Your task to perform on an android device: turn on priority inbox in the gmail app Image 0: 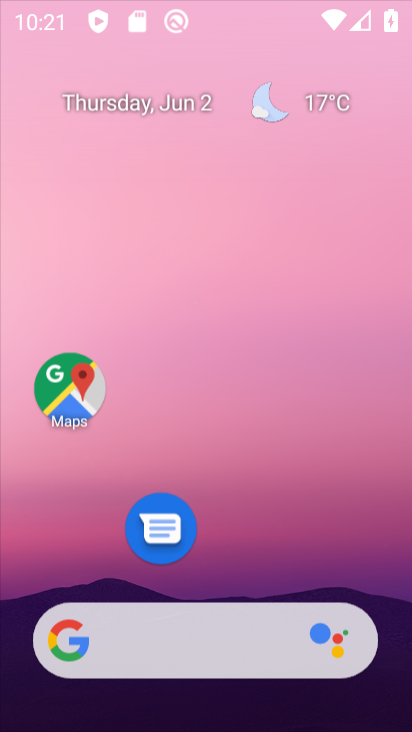
Step 0: click (166, 126)
Your task to perform on an android device: turn on priority inbox in the gmail app Image 1: 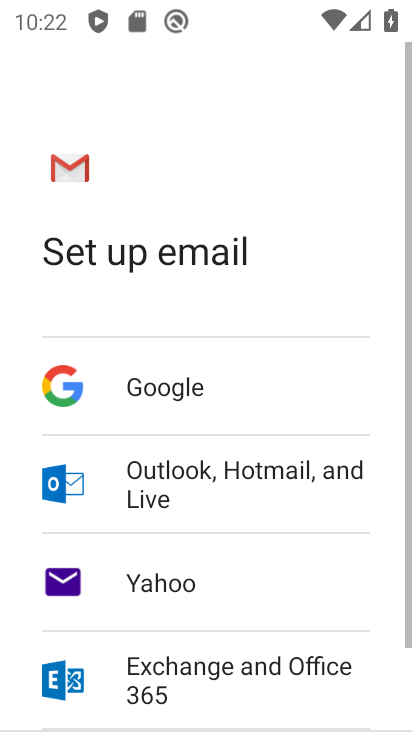
Step 1: press back button
Your task to perform on an android device: turn on priority inbox in the gmail app Image 2: 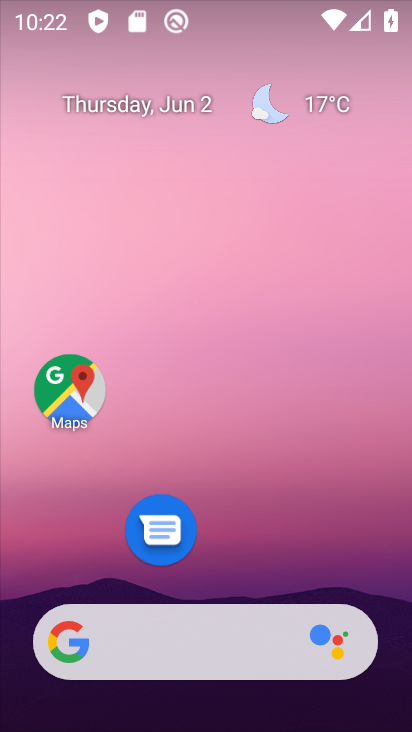
Step 2: drag from (163, 464) to (163, 286)
Your task to perform on an android device: turn on priority inbox in the gmail app Image 3: 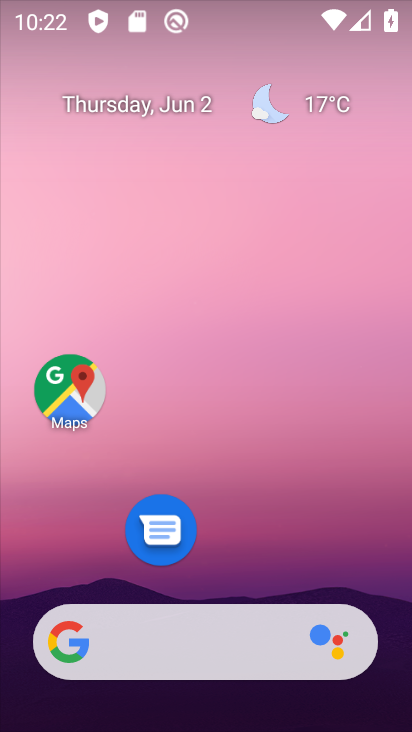
Step 3: drag from (252, 600) to (186, 157)
Your task to perform on an android device: turn on priority inbox in the gmail app Image 4: 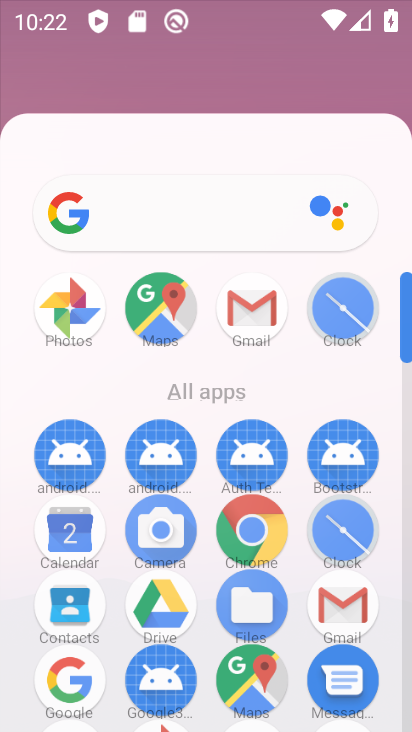
Step 4: drag from (236, 578) to (211, 186)
Your task to perform on an android device: turn on priority inbox in the gmail app Image 5: 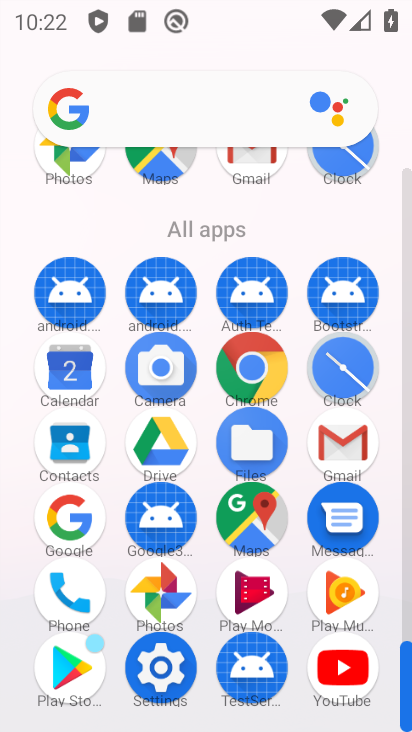
Step 5: drag from (309, 644) to (245, 228)
Your task to perform on an android device: turn on priority inbox in the gmail app Image 6: 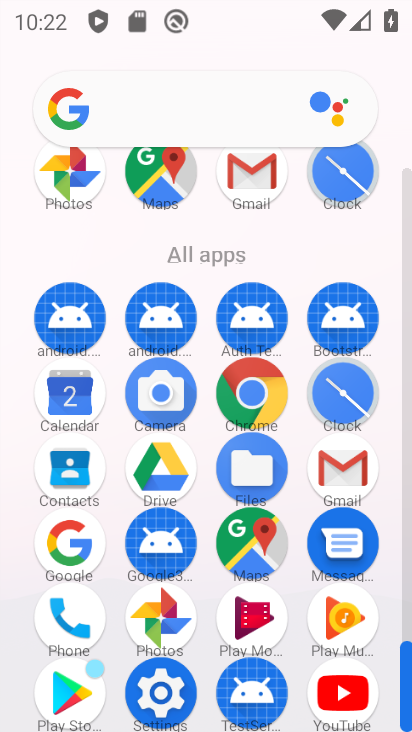
Step 6: click (334, 467)
Your task to perform on an android device: turn on priority inbox in the gmail app Image 7: 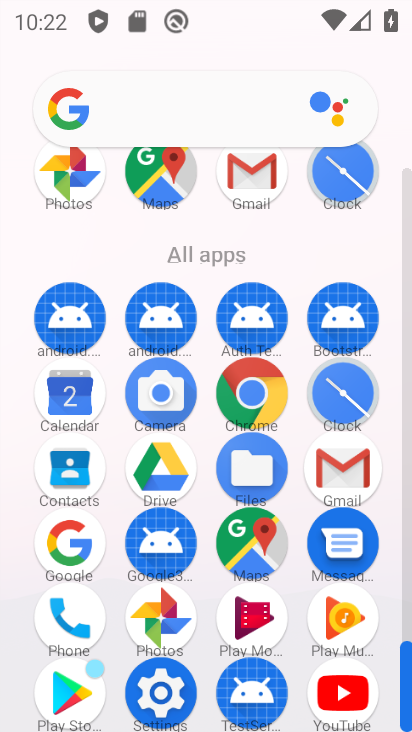
Step 7: click (334, 467)
Your task to perform on an android device: turn on priority inbox in the gmail app Image 8: 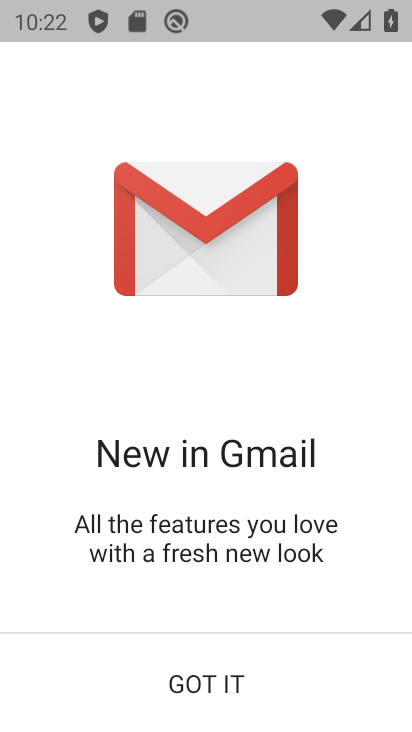
Step 8: click (334, 466)
Your task to perform on an android device: turn on priority inbox in the gmail app Image 9: 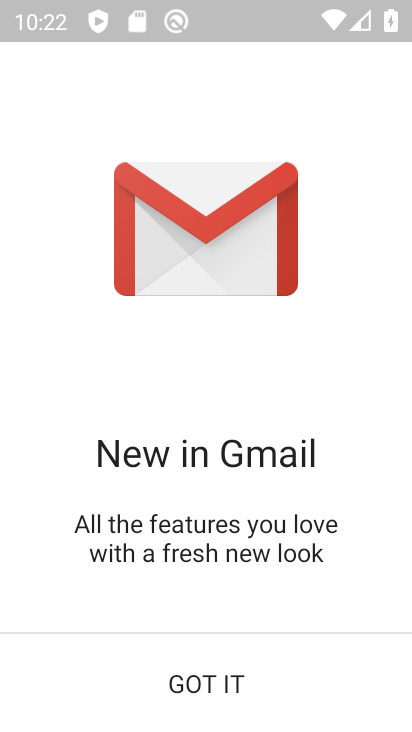
Step 9: click (216, 686)
Your task to perform on an android device: turn on priority inbox in the gmail app Image 10: 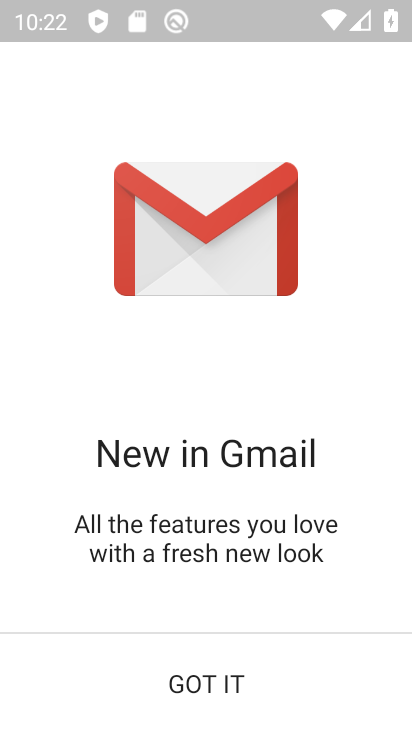
Step 10: click (216, 687)
Your task to perform on an android device: turn on priority inbox in the gmail app Image 11: 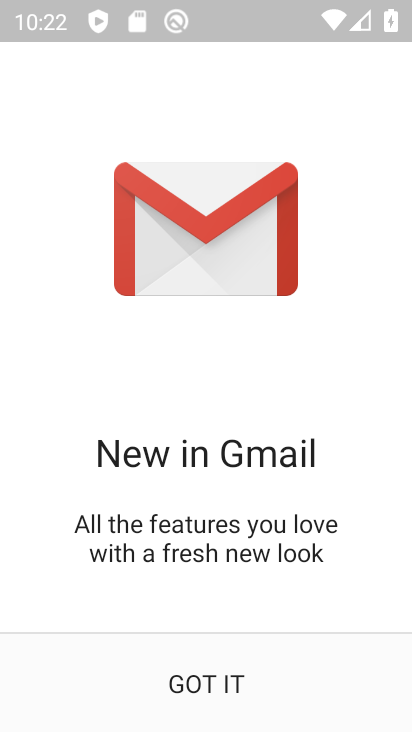
Step 11: click (214, 681)
Your task to perform on an android device: turn on priority inbox in the gmail app Image 12: 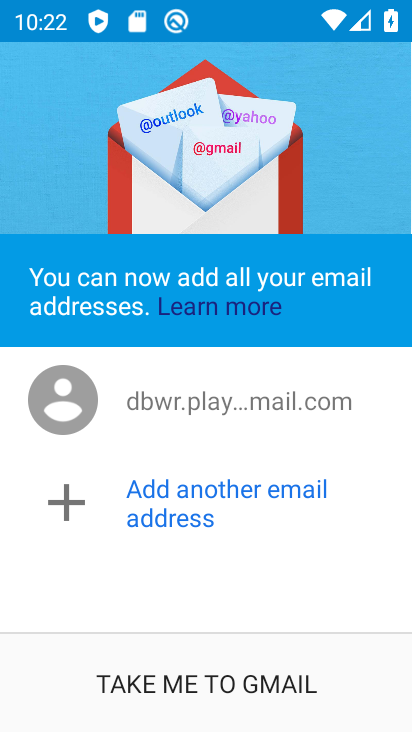
Step 12: click (231, 698)
Your task to perform on an android device: turn on priority inbox in the gmail app Image 13: 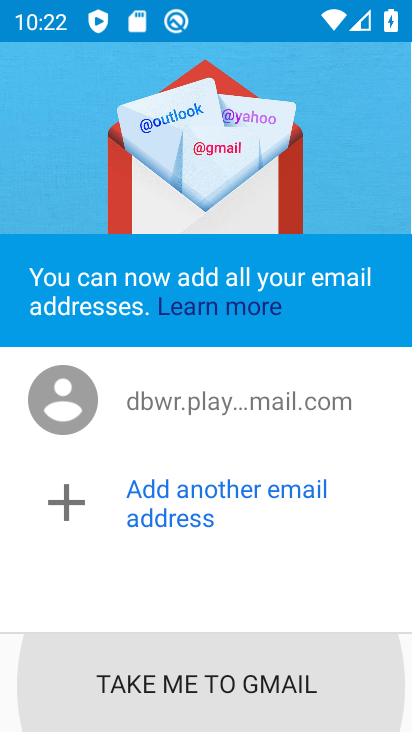
Step 13: click (231, 698)
Your task to perform on an android device: turn on priority inbox in the gmail app Image 14: 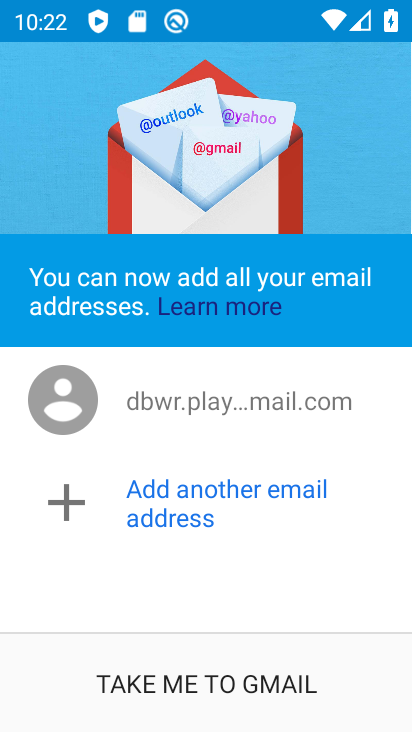
Step 14: click (226, 690)
Your task to perform on an android device: turn on priority inbox in the gmail app Image 15: 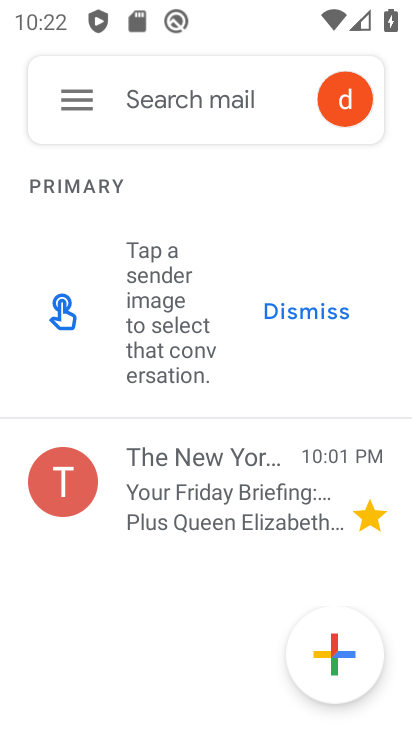
Step 15: click (73, 106)
Your task to perform on an android device: turn on priority inbox in the gmail app Image 16: 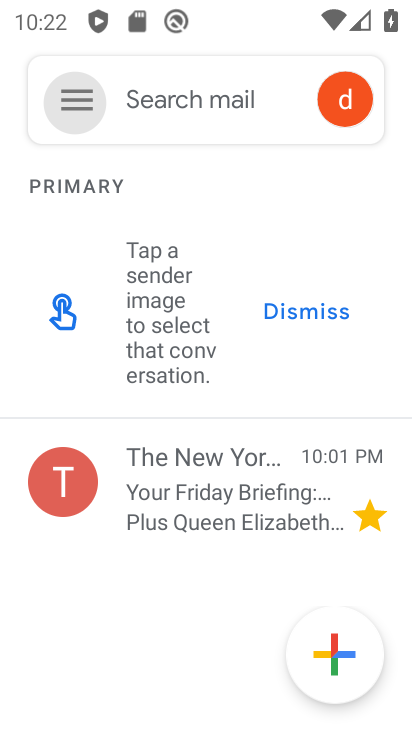
Step 16: click (73, 106)
Your task to perform on an android device: turn on priority inbox in the gmail app Image 17: 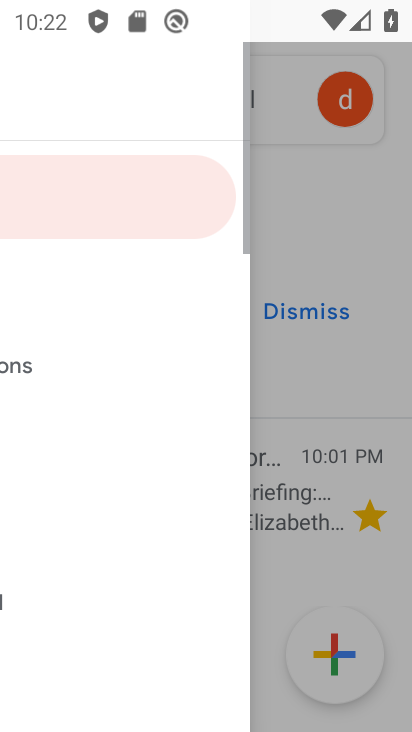
Step 17: click (76, 106)
Your task to perform on an android device: turn on priority inbox in the gmail app Image 18: 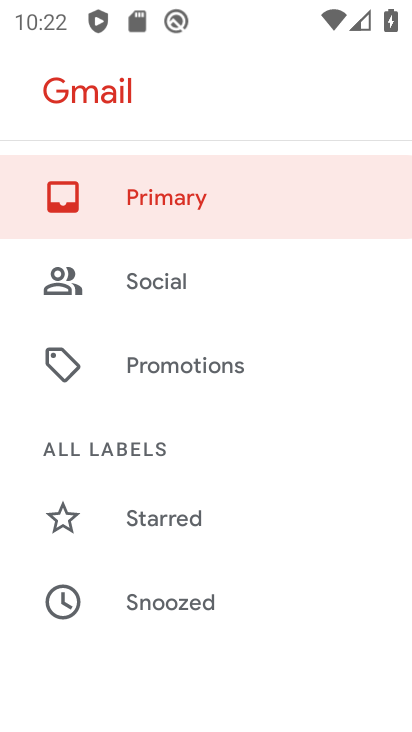
Step 18: drag from (218, 560) to (218, 174)
Your task to perform on an android device: turn on priority inbox in the gmail app Image 19: 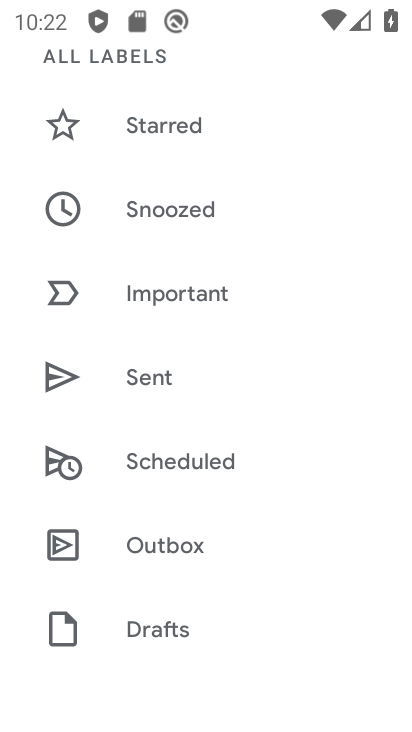
Step 19: drag from (268, 446) to (257, 217)
Your task to perform on an android device: turn on priority inbox in the gmail app Image 20: 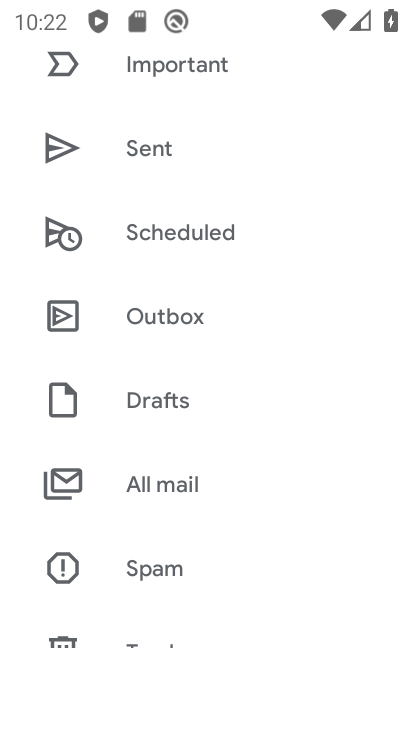
Step 20: drag from (222, 571) to (260, 201)
Your task to perform on an android device: turn on priority inbox in the gmail app Image 21: 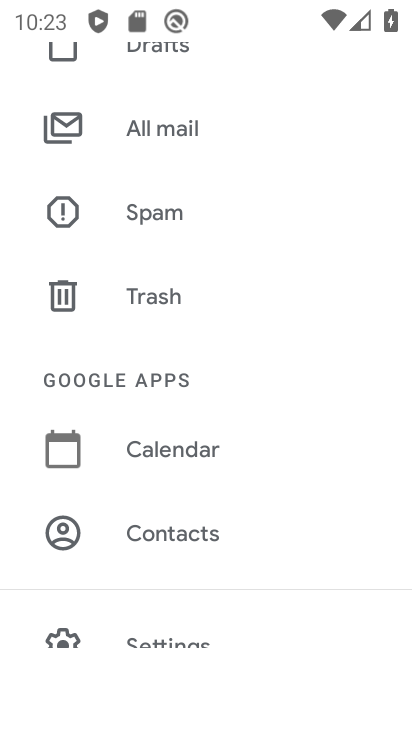
Step 21: drag from (250, 384) to (248, 133)
Your task to perform on an android device: turn on priority inbox in the gmail app Image 22: 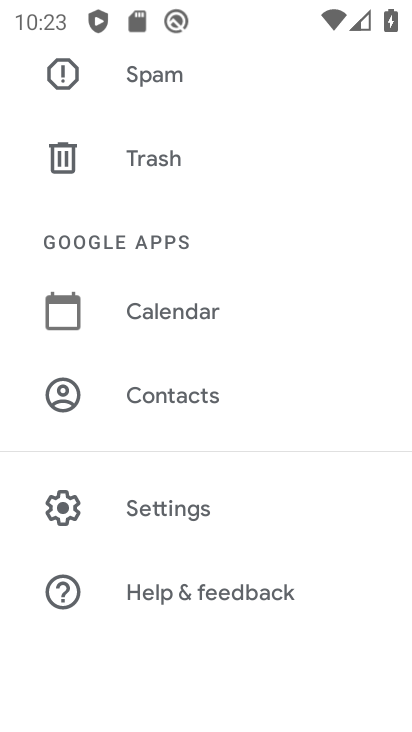
Step 22: click (145, 501)
Your task to perform on an android device: turn on priority inbox in the gmail app Image 23: 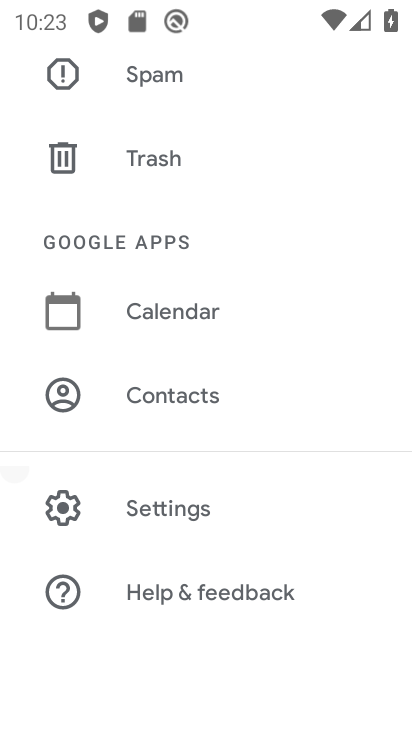
Step 23: click (149, 500)
Your task to perform on an android device: turn on priority inbox in the gmail app Image 24: 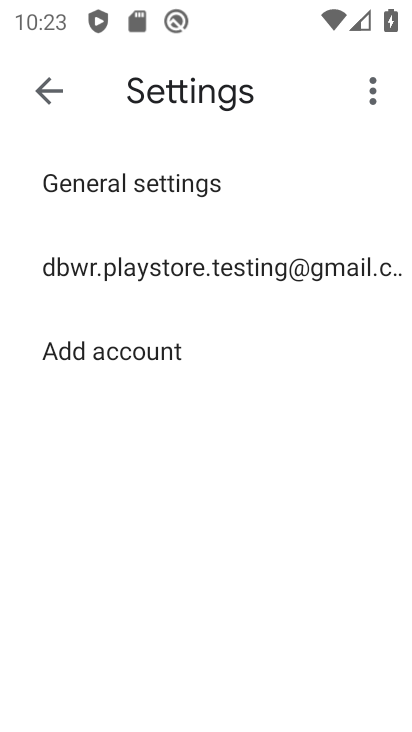
Step 24: click (165, 248)
Your task to perform on an android device: turn on priority inbox in the gmail app Image 25: 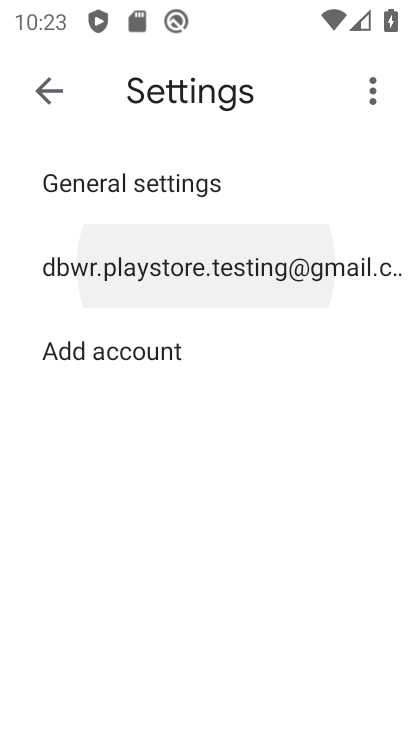
Step 25: click (174, 264)
Your task to perform on an android device: turn on priority inbox in the gmail app Image 26: 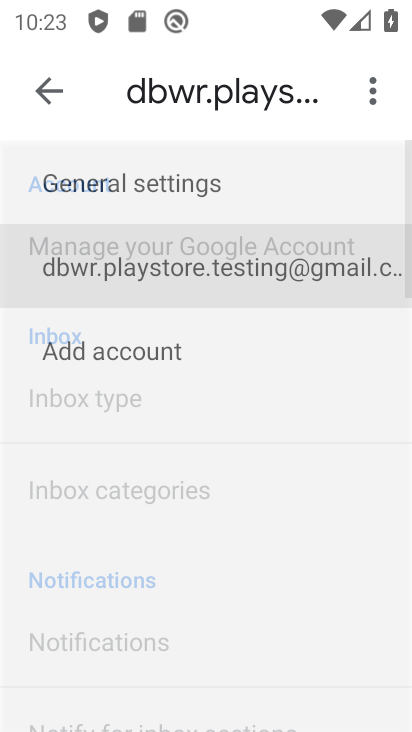
Step 26: click (174, 268)
Your task to perform on an android device: turn on priority inbox in the gmail app Image 27: 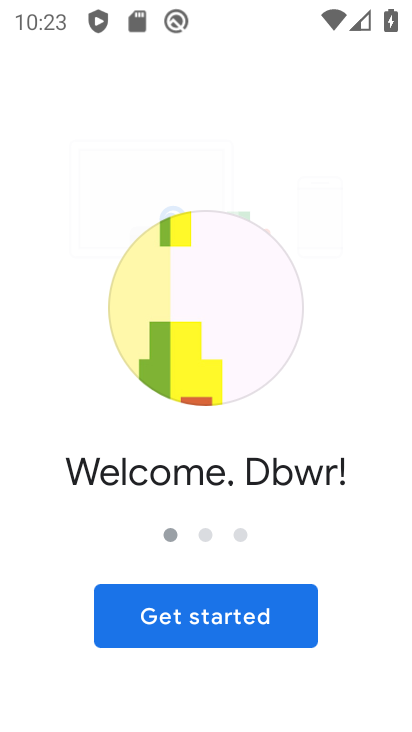
Step 27: press back button
Your task to perform on an android device: turn on priority inbox in the gmail app Image 28: 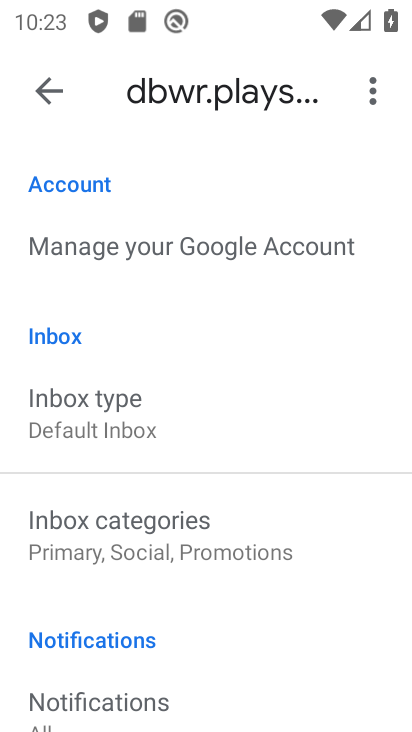
Step 28: click (77, 445)
Your task to perform on an android device: turn on priority inbox in the gmail app Image 29: 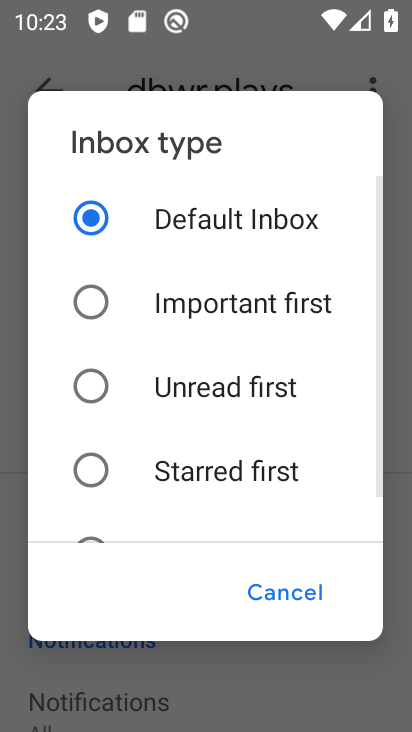
Step 29: click (140, 106)
Your task to perform on an android device: turn on priority inbox in the gmail app Image 30: 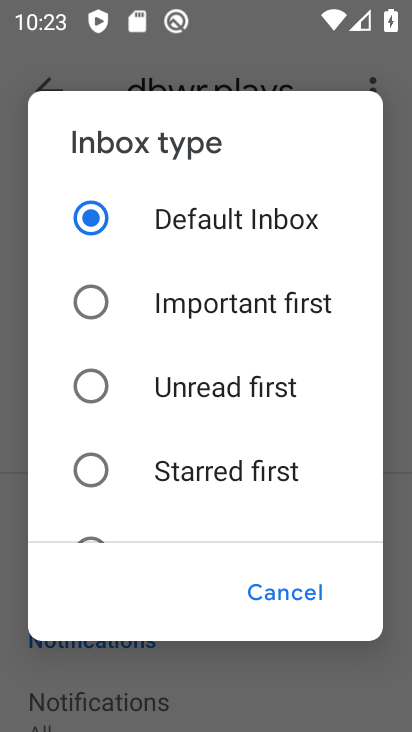
Step 30: drag from (201, 370) to (224, 48)
Your task to perform on an android device: turn on priority inbox in the gmail app Image 31: 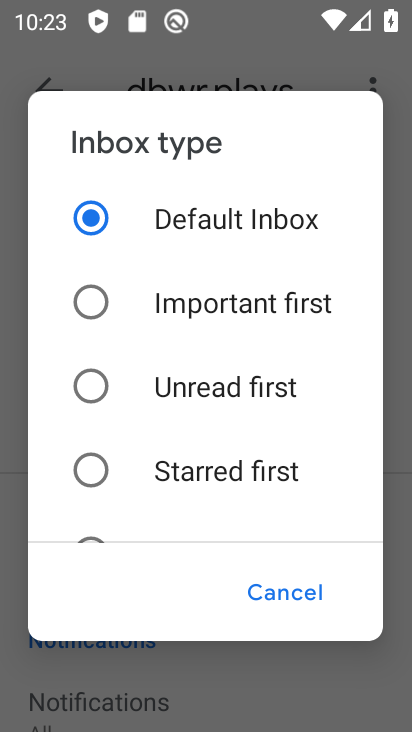
Step 31: drag from (206, 318) to (214, 45)
Your task to perform on an android device: turn on priority inbox in the gmail app Image 32: 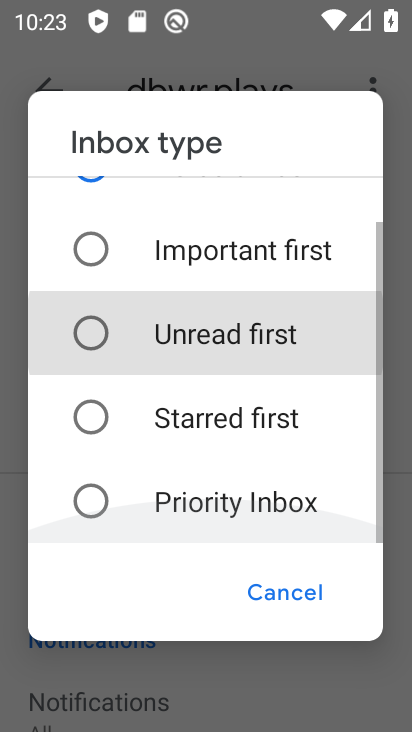
Step 32: drag from (162, 424) to (162, 215)
Your task to perform on an android device: turn on priority inbox in the gmail app Image 33: 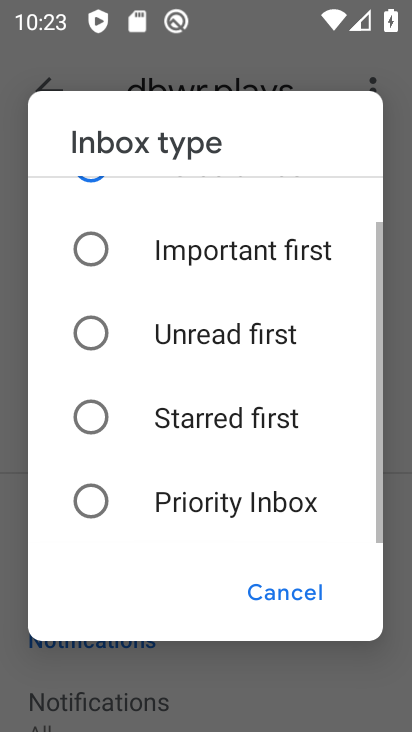
Step 33: click (92, 499)
Your task to perform on an android device: turn on priority inbox in the gmail app Image 34: 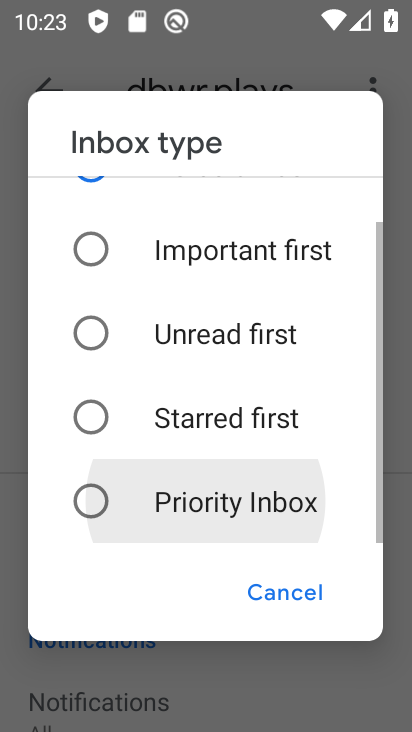
Step 34: click (96, 498)
Your task to perform on an android device: turn on priority inbox in the gmail app Image 35: 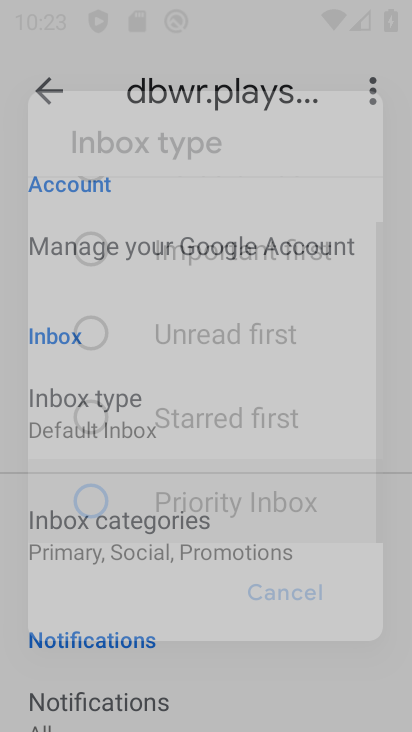
Step 35: click (96, 498)
Your task to perform on an android device: turn on priority inbox in the gmail app Image 36: 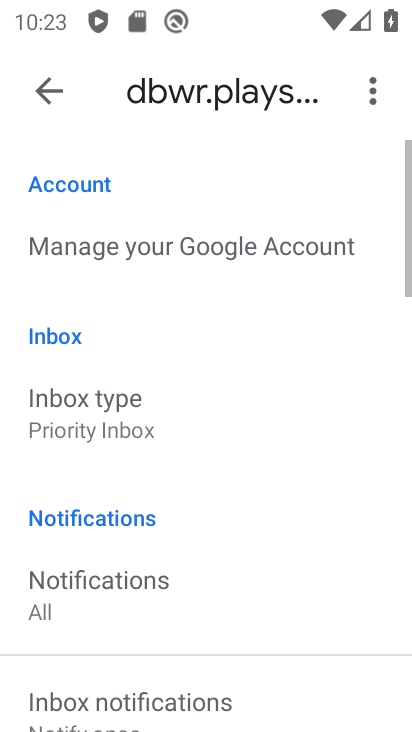
Step 36: click (96, 498)
Your task to perform on an android device: turn on priority inbox in the gmail app Image 37: 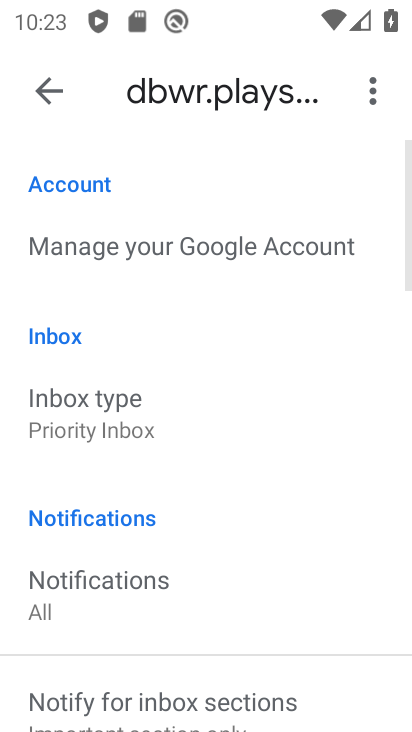
Step 37: task complete